Your task to perform on an android device: find which apps use the phone's location Image 0: 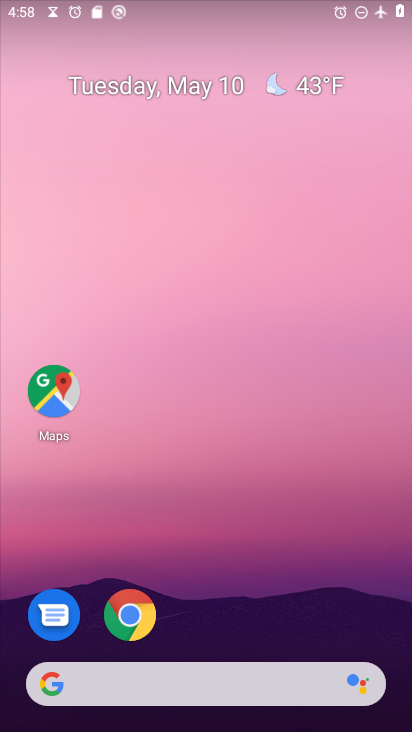
Step 0: drag from (281, 573) to (238, 13)
Your task to perform on an android device: find which apps use the phone's location Image 1: 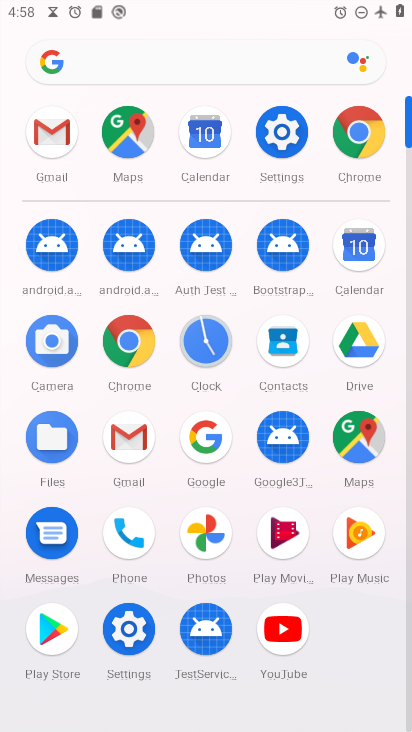
Step 1: drag from (0, 556) to (17, 210)
Your task to perform on an android device: find which apps use the phone's location Image 2: 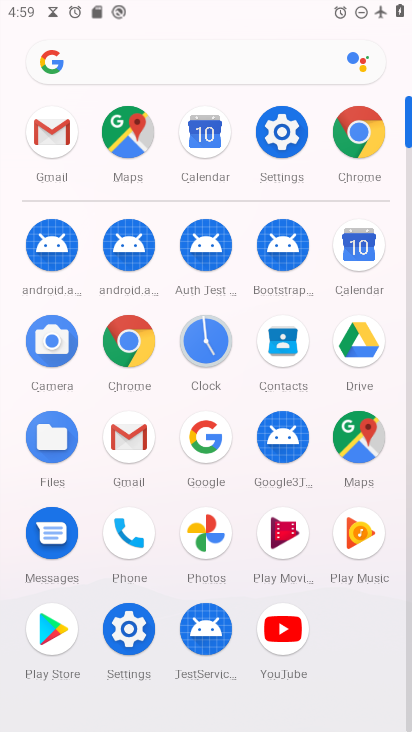
Step 2: click (130, 626)
Your task to perform on an android device: find which apps use the phone's location Image 3: 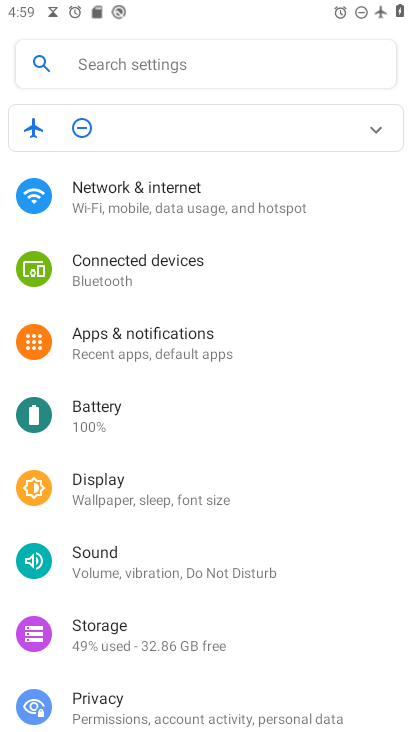
Step 3: drag from (289, 585) to (348, 210)
Your task to perform on an android device: find which apps use the phone's location Image 4: 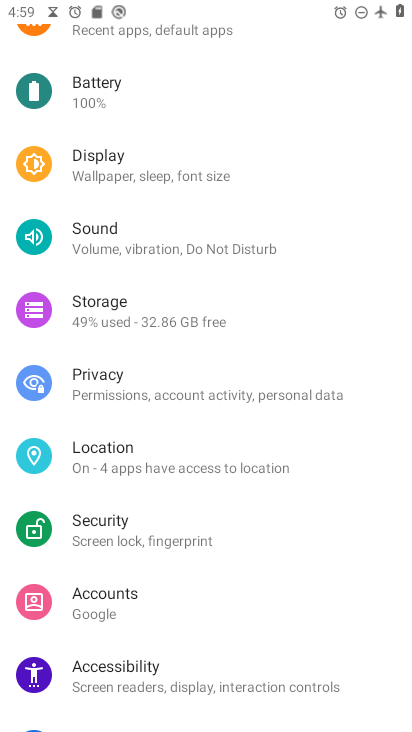
Step 4: click (154, 448)
Your task to perform on an android device: find which apps use the phone's location Image 5: 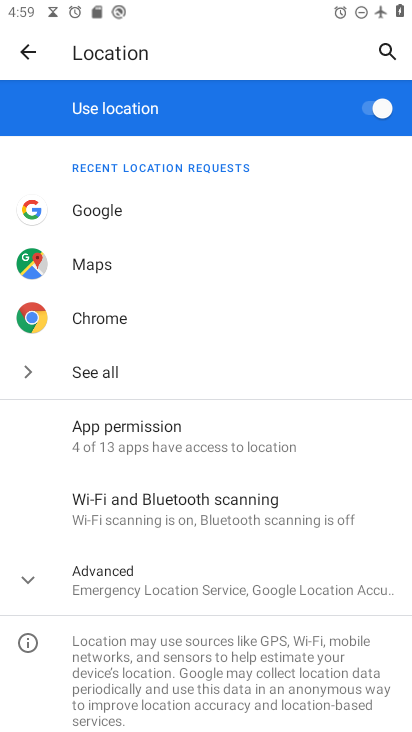
Step 5: drag from (268, 576) to (278, 279)
Your task to perform on an android device: find which apps use the phone's location Image 6: 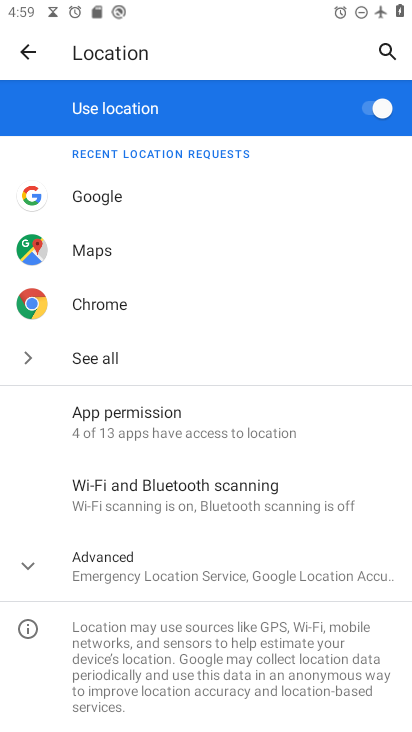
Step 6: click (195, 427)
Your task to perform on an android device: find which apps use the phone's location Image 7: 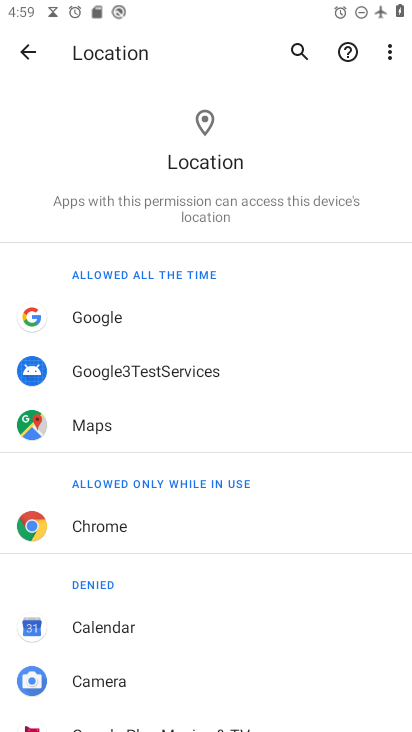
Step 7: task complete